Your task to perform on an android device: turn off notifications settings in the gmail app Image 0: 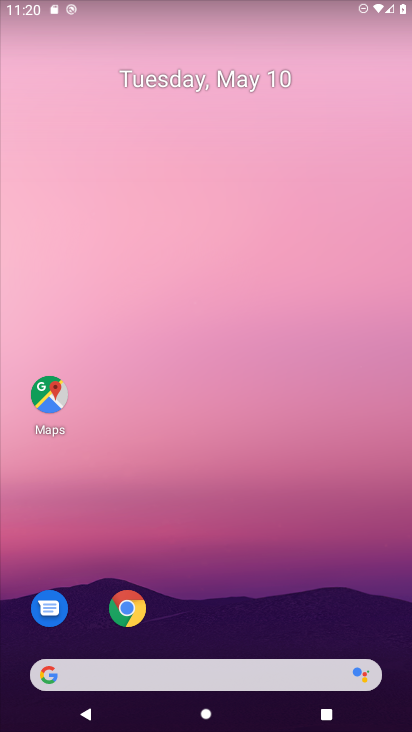
Step 0: drag from (310, 589) to (304, 49)
Your task to perform on an android device: turn off notifications settings in the gmail app Image 1: 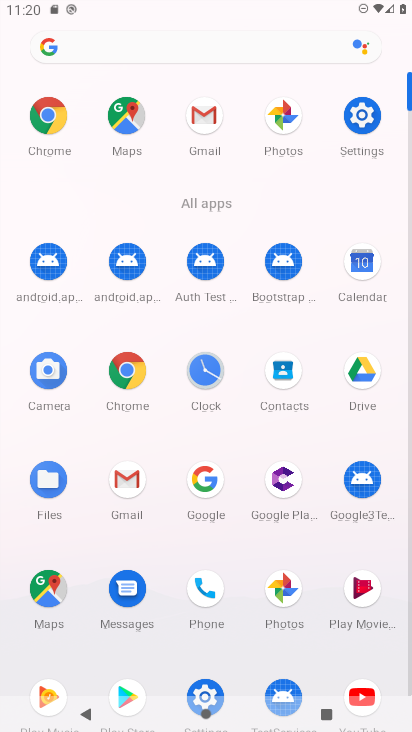
Step 1: click (199, 122)
Your task to perform on an android device: turn off notifications settings in the gmail app Image 2: 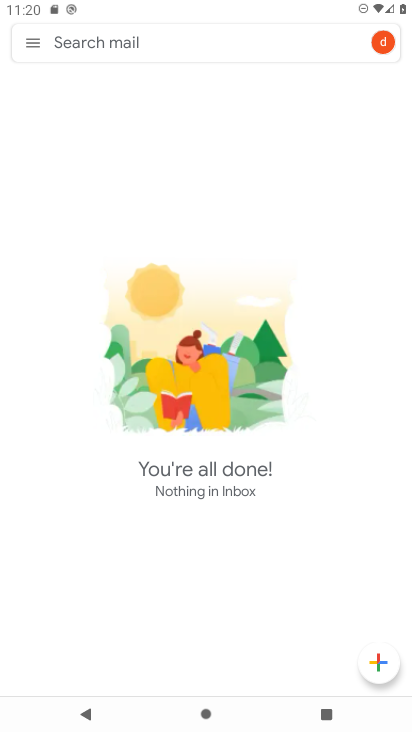
Step 2: click (30, 36)
Your task to perform on an android device: turn off notifications settings in the gmail app Image 3: 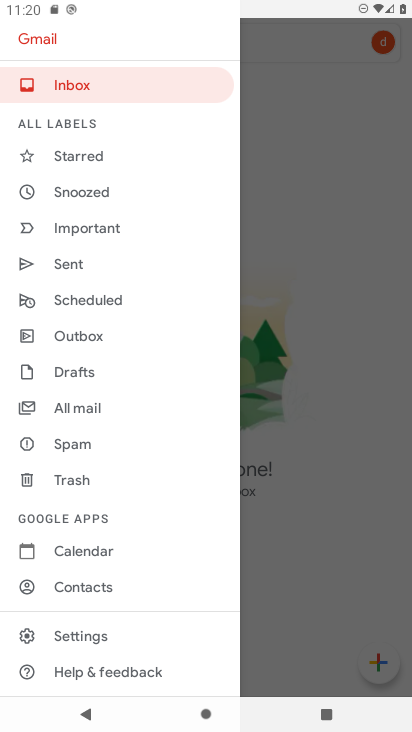
Step 3: click (111, 631)
Your task to perform on an android device: turn off notifications settings in the gmail app Image 4: 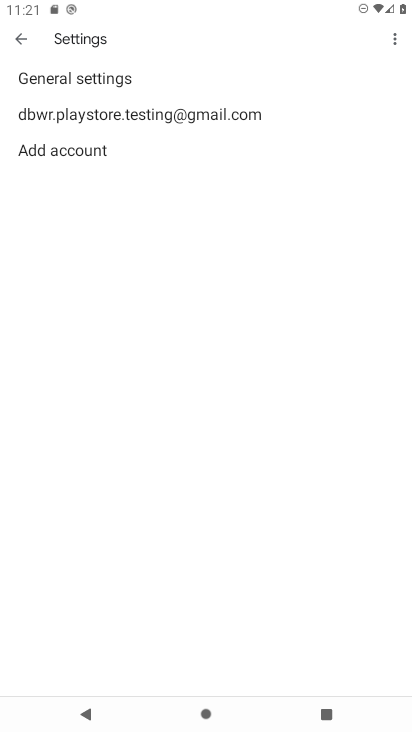
Step 4: click (122, 101)
Your task to perform on an android device: turn off notifications settings in the gmail app Image 5: 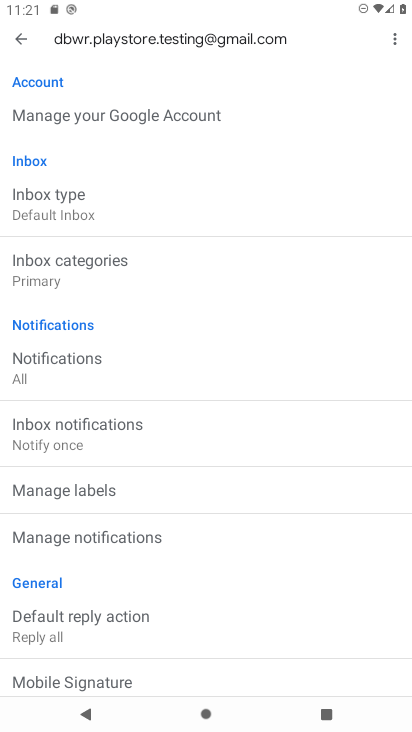
Step 5: click (151, 528)
Your task to perform on an android device: turn off notifications settings in the gmail app Image 6: 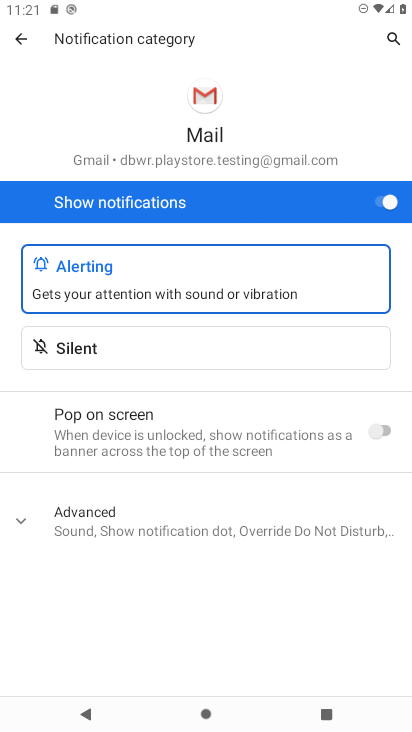
Step 6: click (393, 198)
Your task to perform on an android device: turn off notifications settings in the gmail app Image 7: 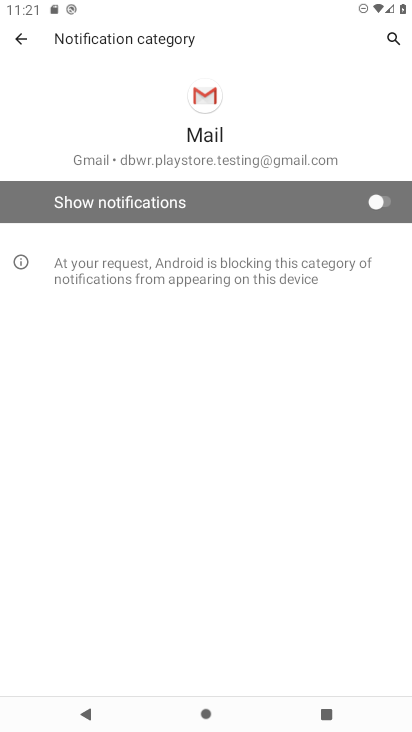
Step 7: task complete